Your task to perform on an android device: Turn off the flashlight Image 0: 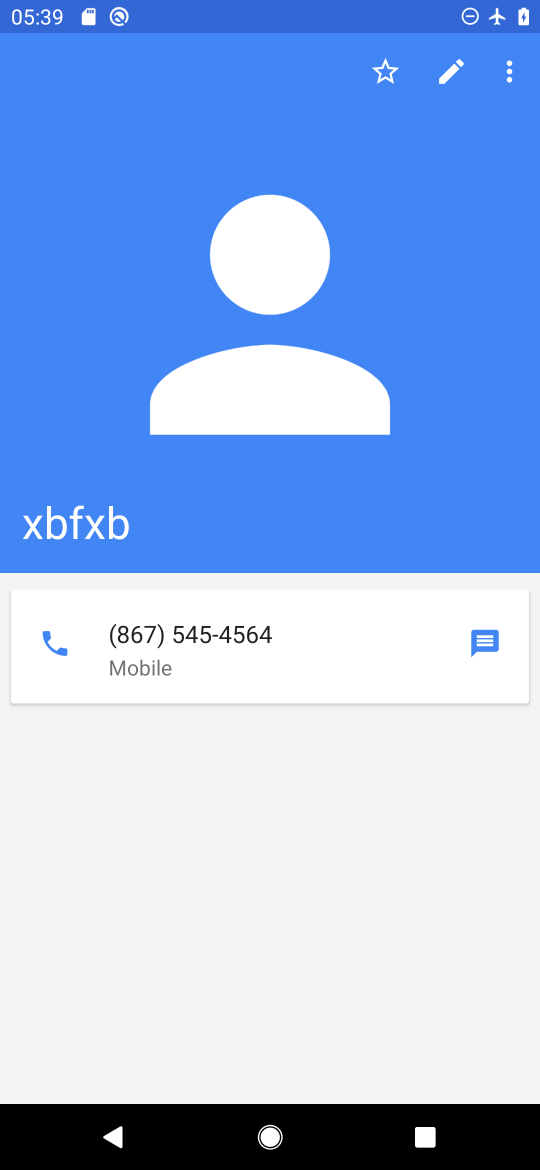
Step 0: press home button
Your task to perform on an android device: Turn off the flashlight Image 1: 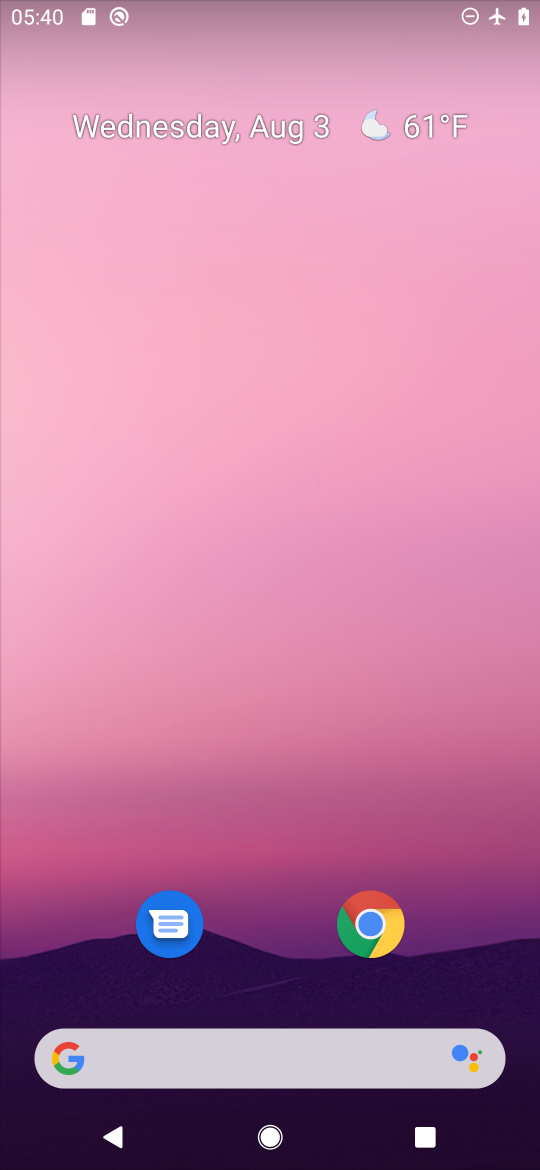
Step 1: drag from (269, 947) to (269, 226)
Your task to perform on an android device: Turn off the flashlight Image 2: 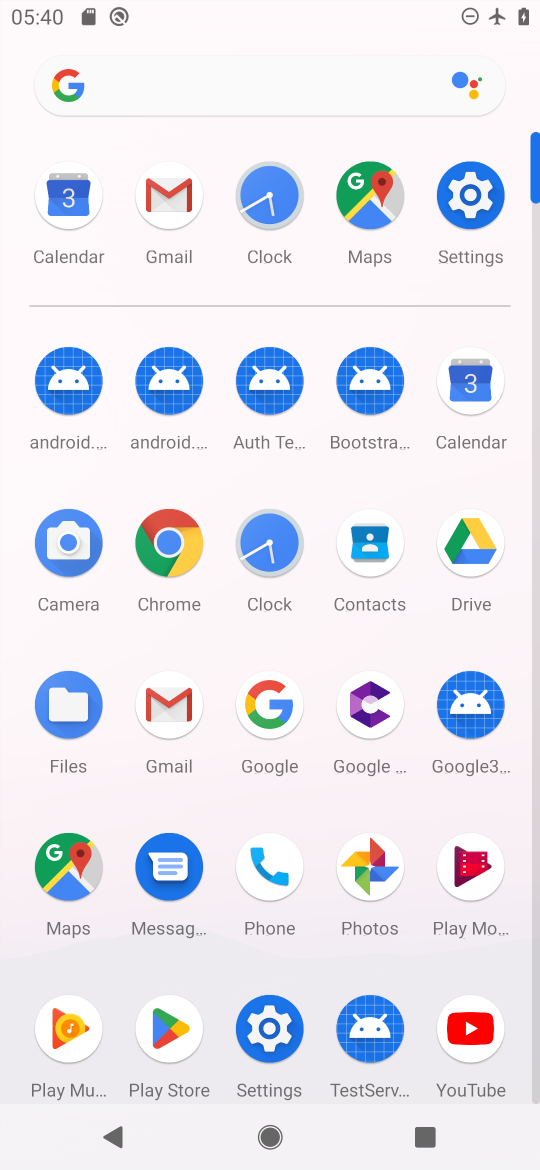
Step 2: click (452, 213)
Your task to perform on an android device: Turn off the flashlight Image 3: 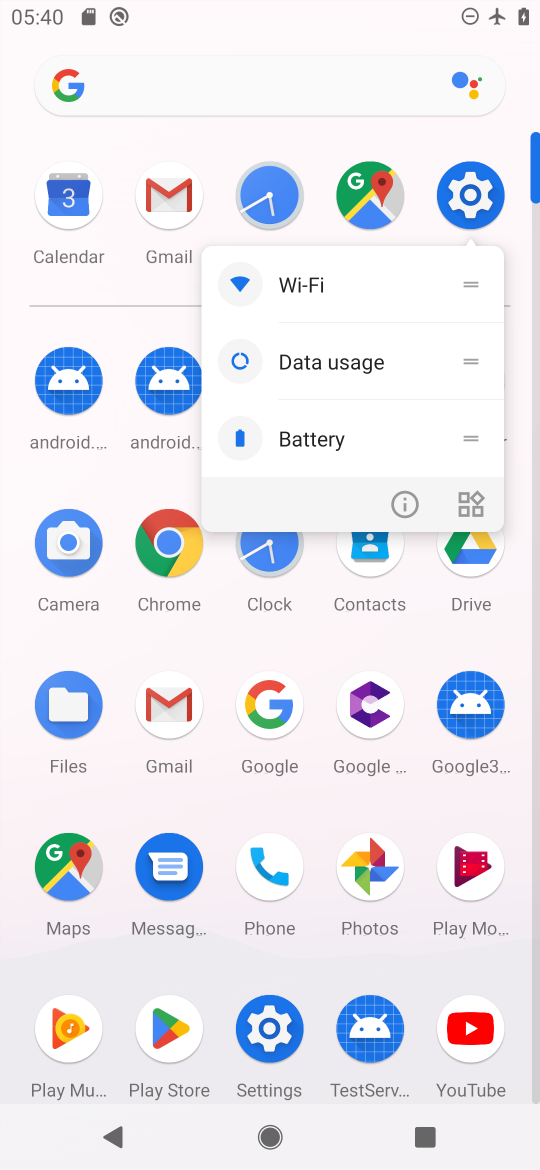
Step 3: click (468, 185)
Your task to perform on an android device: Turn off the flashlight Image 4: 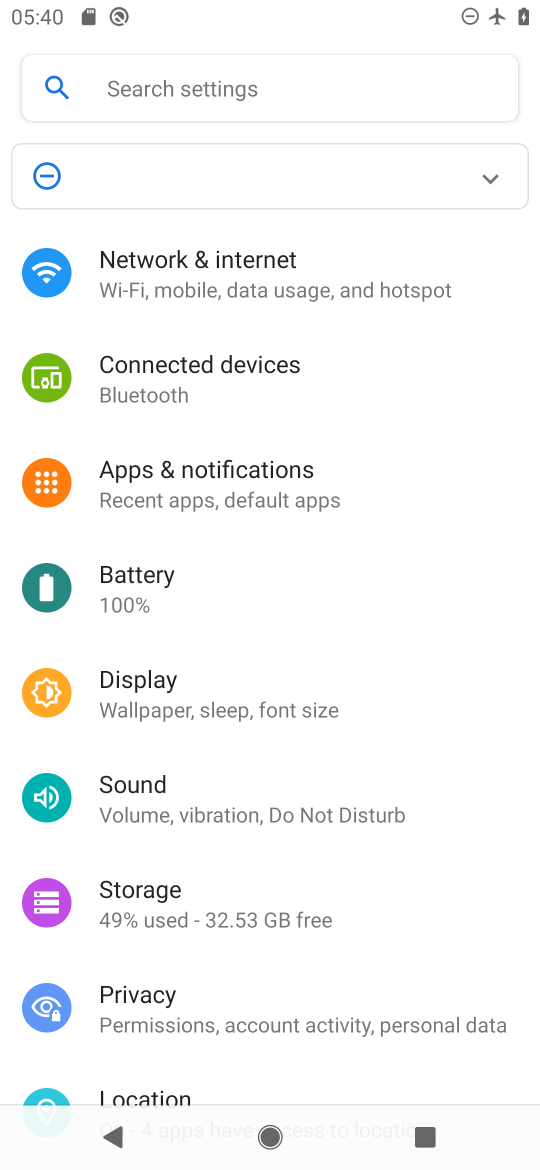
Step 4: task complete